Your task to perform on an android device: open a bookmark in the chrome app Image 0: 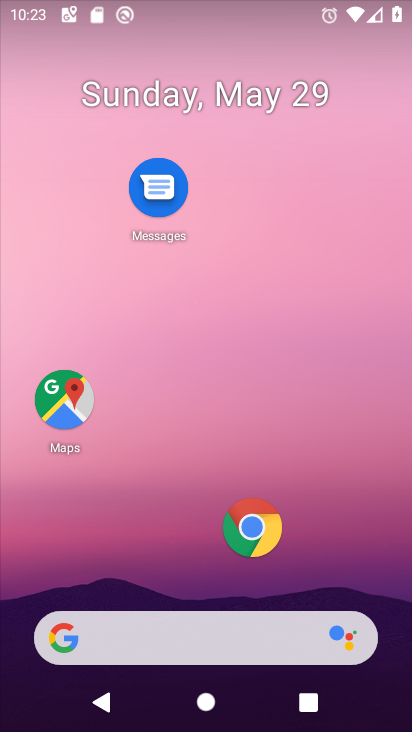
Step 0: click (248, 521)
Your task to perform on an android device: open a bookmark in the chrome app Image 1: 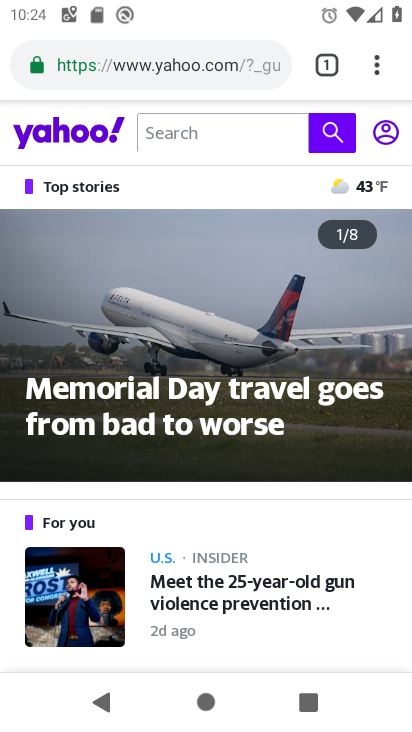
Step 1: click (381, 63)
Your task to perform on an android device: open a bookmark in the chrome app Image 2: 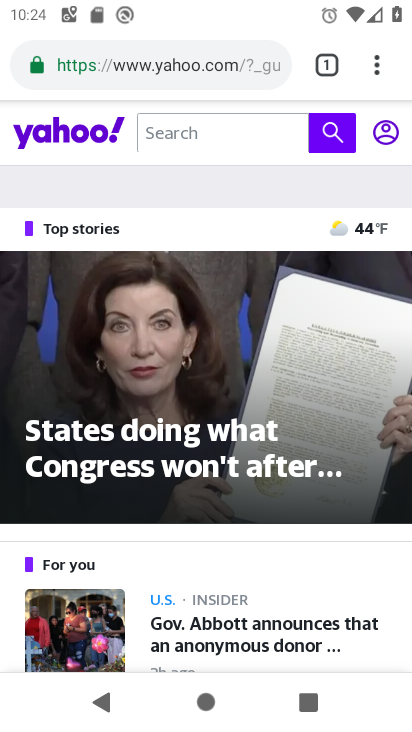
Step 2: click (377, 57)
Your task to perform on an android device: open a bookmark in the chrome app Image 3: 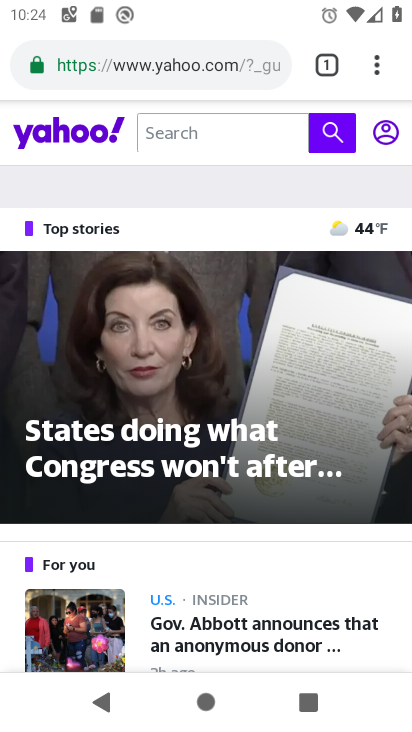
Step 3: click (373, 60)
Your task to perform on an android device: open a bookmark in the chrome app Image 4: 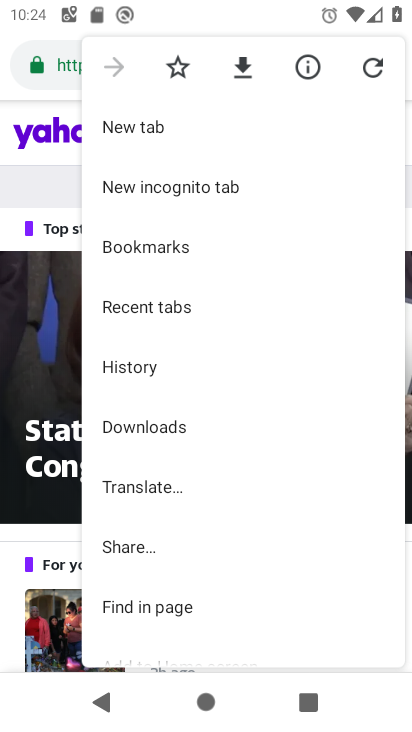
Step 4: click (207, 244)
Your task to perform on an android device: open a bookmark in the chrome app Image 5: 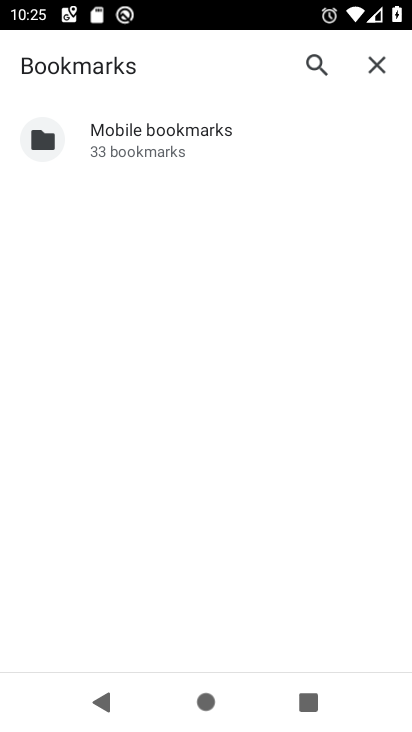
Step 5: click (171, 157)
Your task to perform on an android device: open a bookmark in the chrome app Image 6: 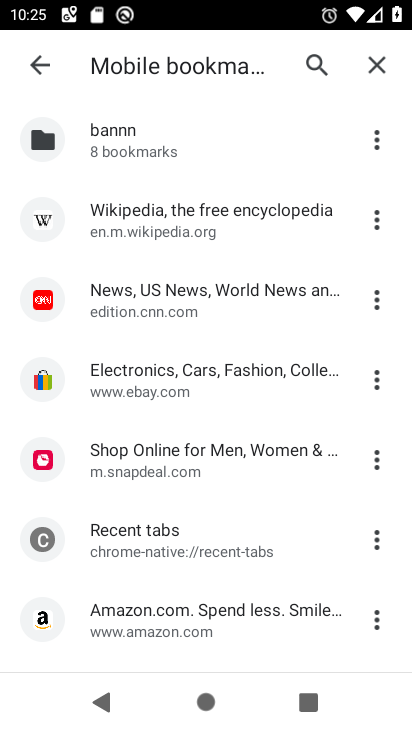
Step 6: click (171, 463)
Your task to perform on an android device: open a bookmark in the chrome app Image 7: 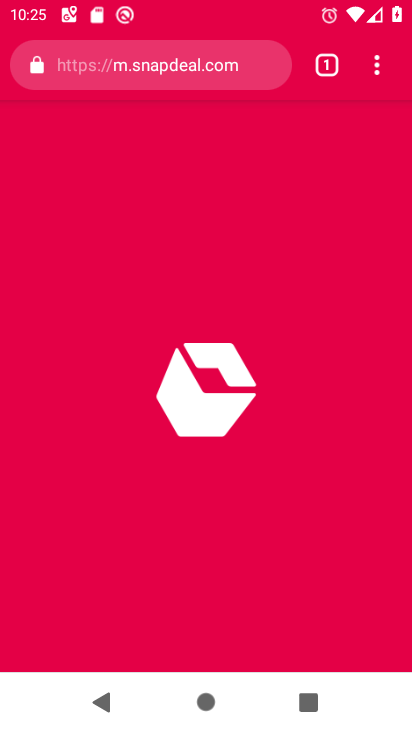
Step 7: task complete